Your task to perform on an android device: change timer sound Image 0: 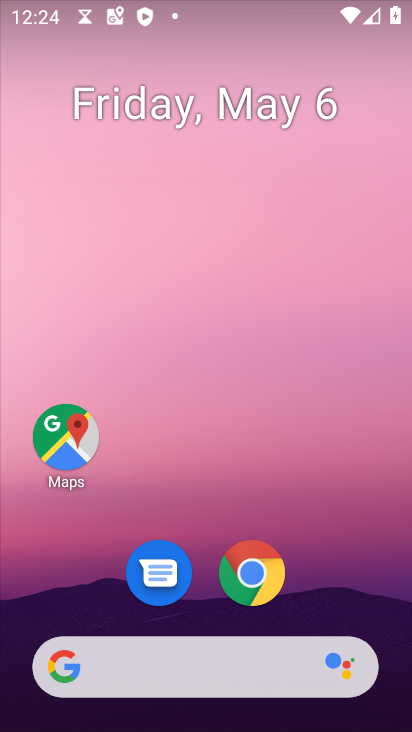
Step 0: drag from (331, 606) to (373, 166)
Your task to perform on an android device: change timer sound Image 1: 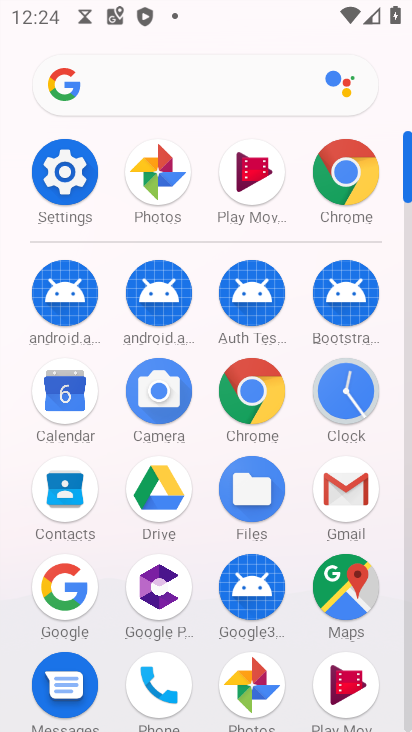
Step 1: click (344, 396)
Your task to perform on an android device: change timer sound Image 2: 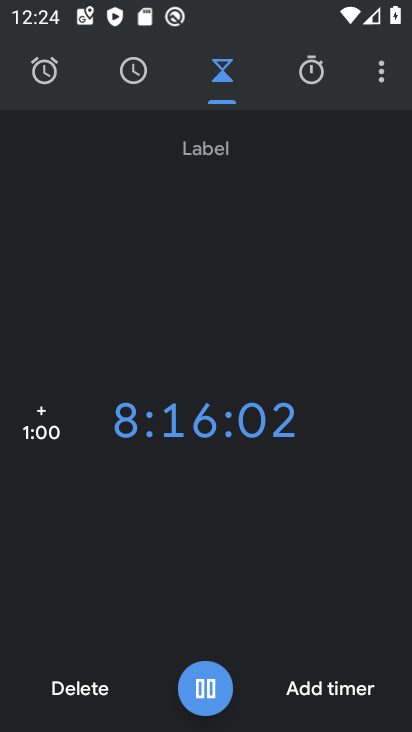
Step 2: click (371, 76)
Your task to perform on an android device: change timer sound Image 3: 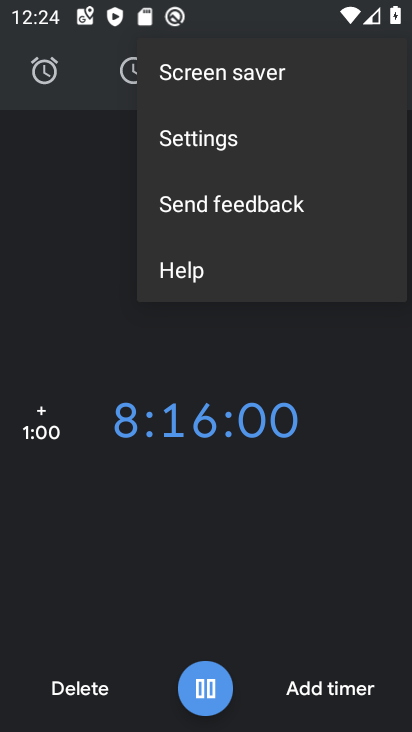
Step 3: click (271, 132)
Your task to perform on an android device: change timer sound Image 4: 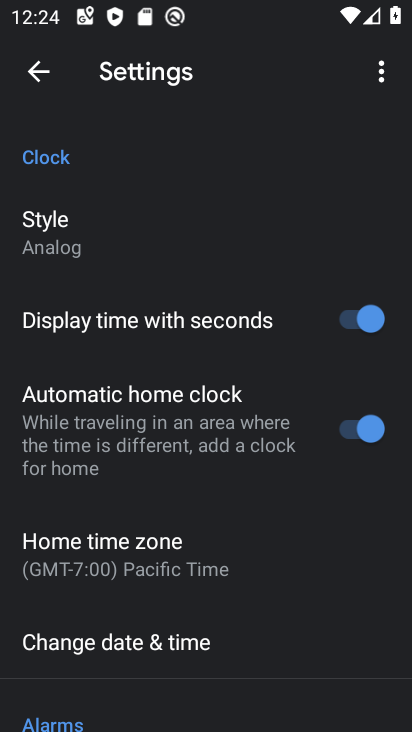
Step 4: drag from (234, 605) to (264, 218)
Your task to perform on an android device: change timer sound Image 5: 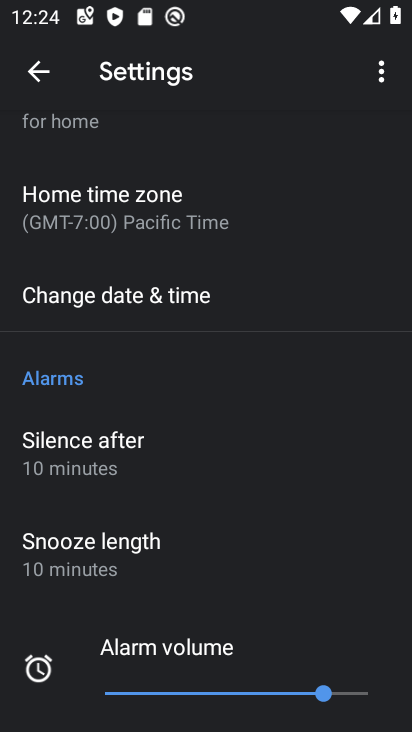
Step 5: drag from (227, 574) to (258, 204)
Your task to perform on an android device: change timer sound Image 6: 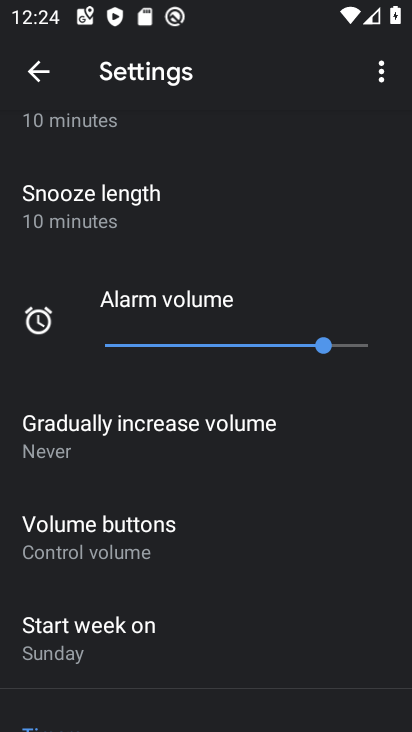
Step 6: drag from (239, 588) to (259, 233)
Your task to perform on an android device: change timer sound Image 7: 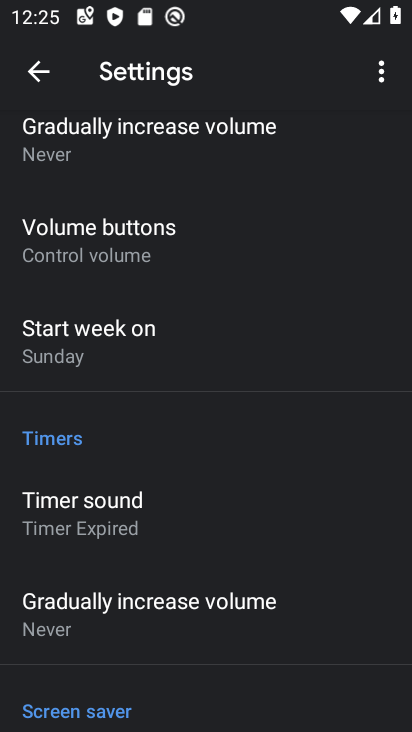
Step 7: click (136, 526)
Your task to perform on an android device: change timer sound Image 8: 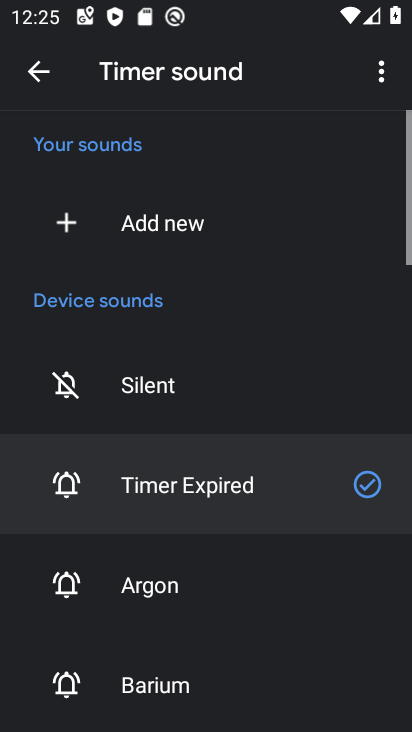
Step 8: drag from (207, 617) to (230, 248)
Your task to perform on an android device: change timer sound Image 9: 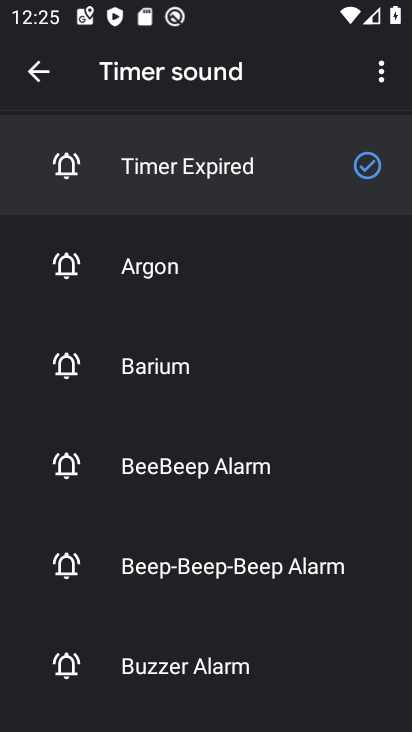
Step 9: click (171, 569)
Your task to perform on an android device: change timer sound Image 10: 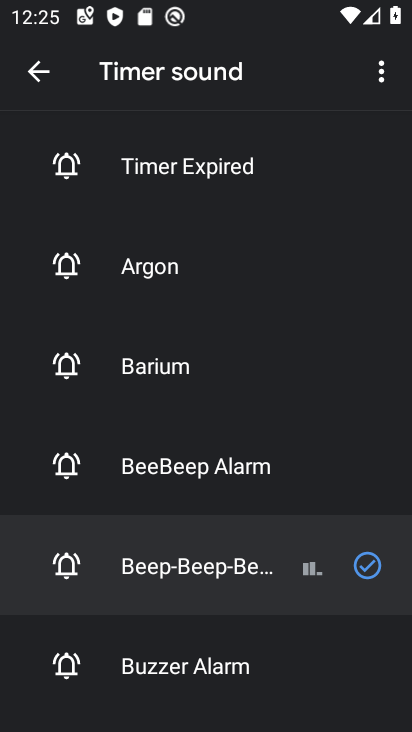
Step 10: task complete